Your task to perform on an android device: manage bookmarks in the chrome app Image 0: 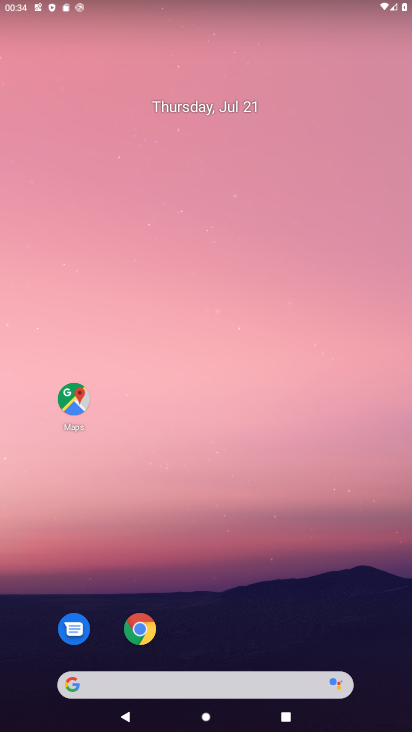
Step 0: drag from (325, 617) to (252, 145)
Your task to perform on an android device: manage bookmarks in the chrome app Image 1: 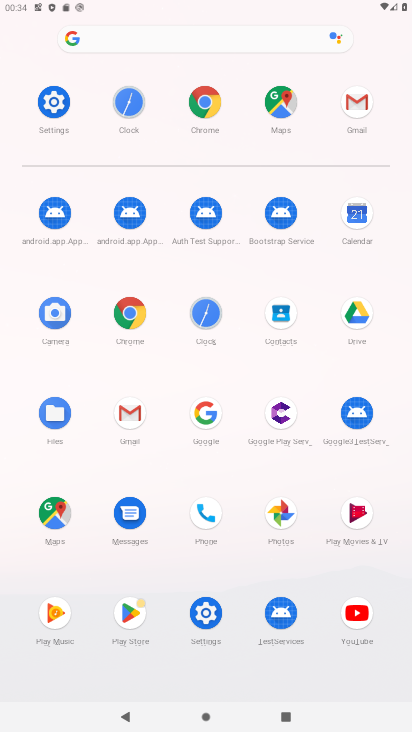
Step 1: click (198, 99)
Your task to perform on an android device: manage bookmarks in the chrome app Image 2: 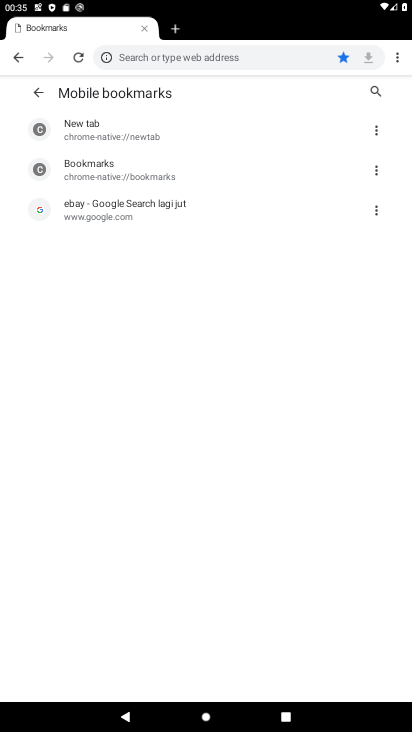
Step 2: click (381, 123)
Your task to perform on an android device: manage bookmarks in the chrome app Image 3: 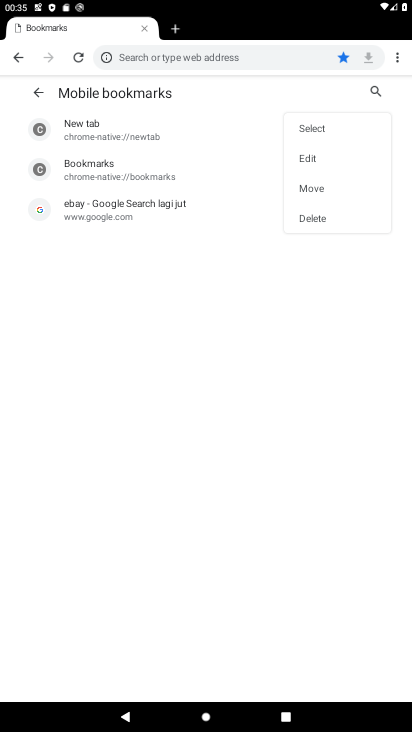
Step 3: click (333, 158)
Your task to perform on an android device: manage bookmarks in the chrome app Image 4: 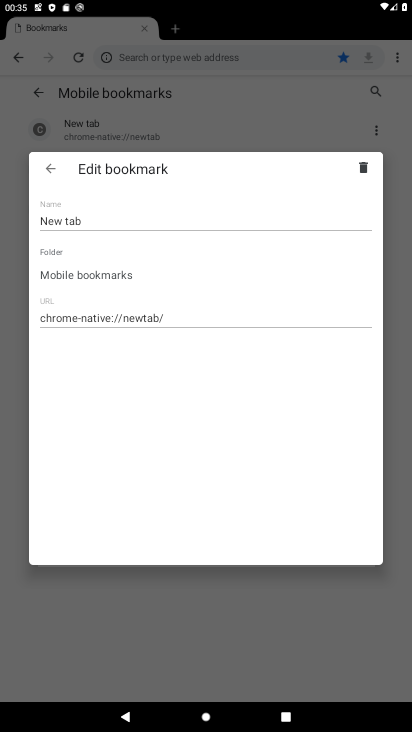
Step 4: click (228, 220)
Your task to perform on an android device: manage bookmarks in the chrome app Image 5: 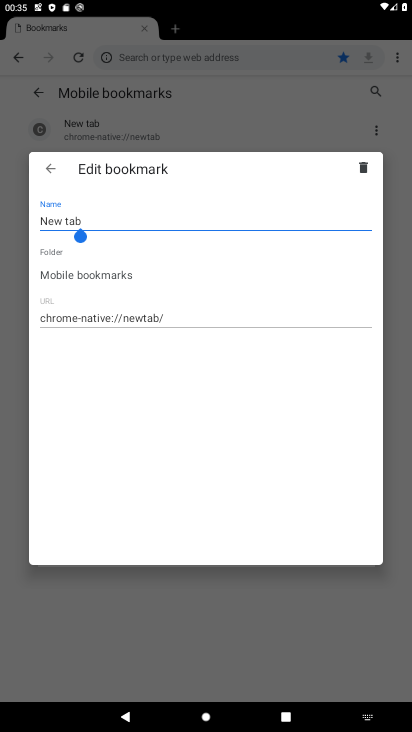
Step 5: type " dhaba"
Your task to perform on an android device: manage bookmarks in the chrome app Image 6: 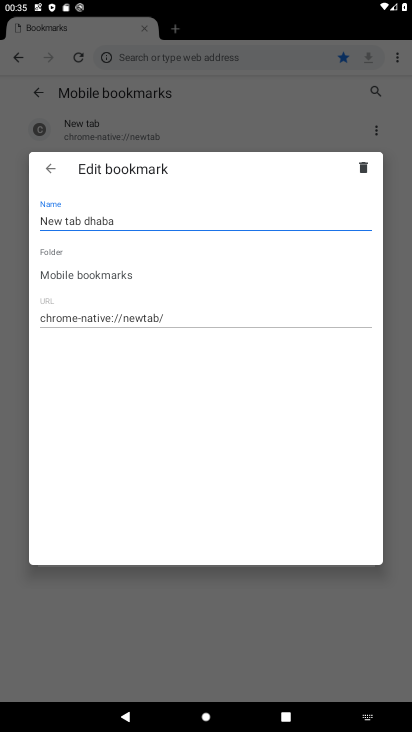
Step 6: click (52, 170)
Your task to perform on an android device: manage bookmarks in the chrome app Image 7: 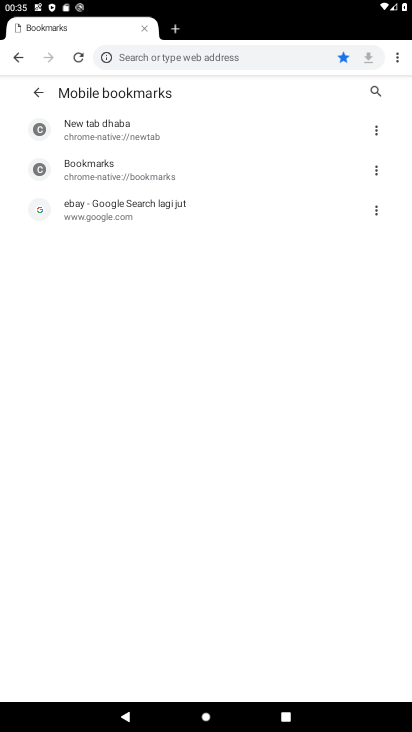
Step 7: task complete